Your task to perform on an android device: Open Google Maps and go to "Timeline" Image 0: 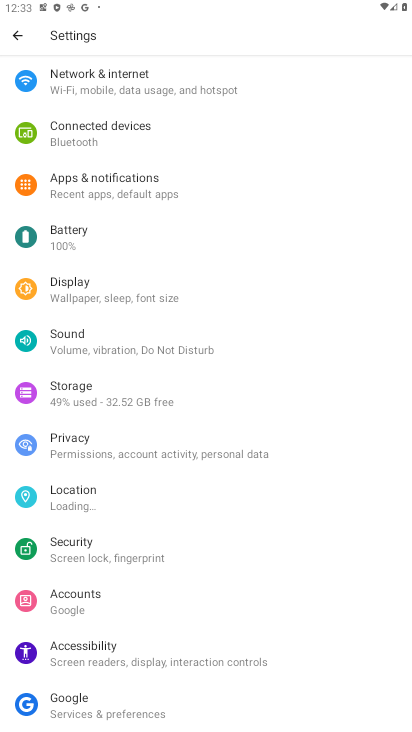
Step 0: press home button
Your task to perform on an android device: Open Google Maps and go to "Timeline" Image 1: 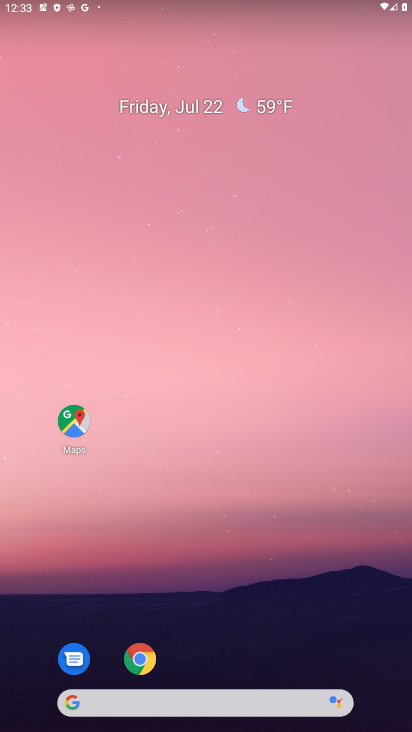
Step 1: drag from (211, 557) to (302, 48)
Your task to perform on an android device: Open Google Maps and go to "Timeline" Image 2: 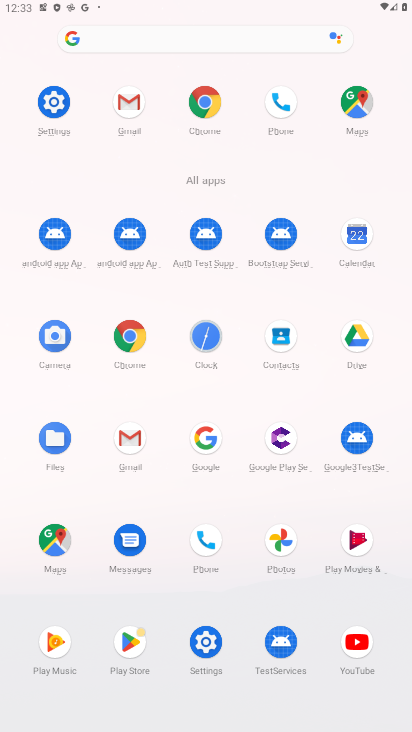
Step 2: click (365, 100)
Your task to perform on an android device: Open Google Maps and go to "Timeline" Image 3: 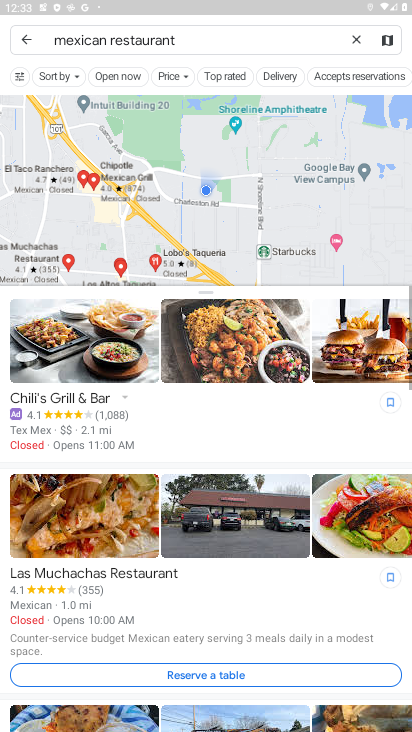
Step 3: click (32, 39)
Your task to perform on an android device: Open Google Maps and go to "Timeline" Image 4: 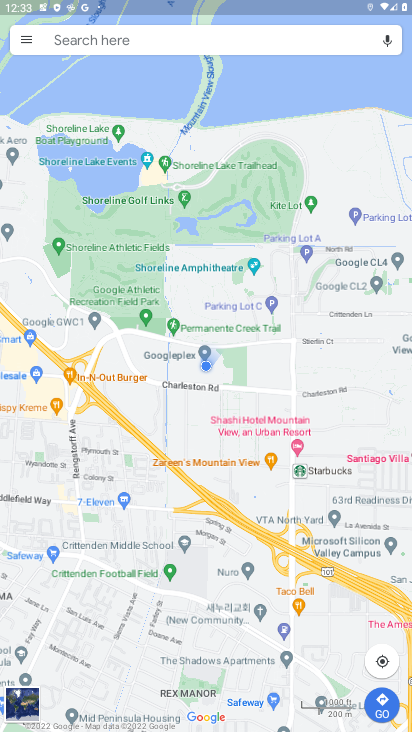
Step 4: click (32, 41)
Your task to perform on an android device: Open Google Maps and go to "Timeline" Image 5: 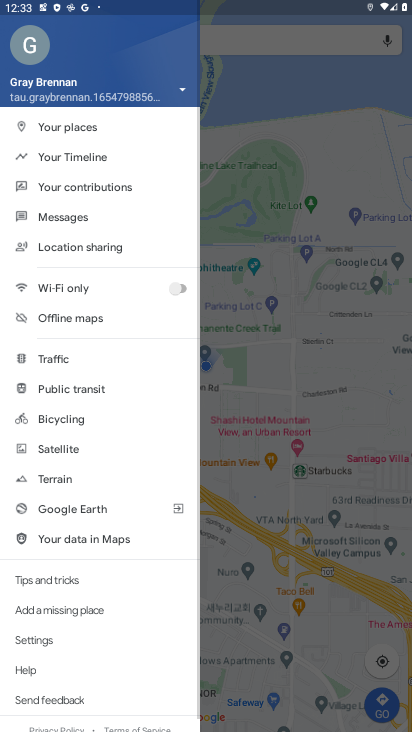
Step 5: click (91, 150)
Your task to perform on an android device: Open Google Maps and go to "Timeline" Image 6: 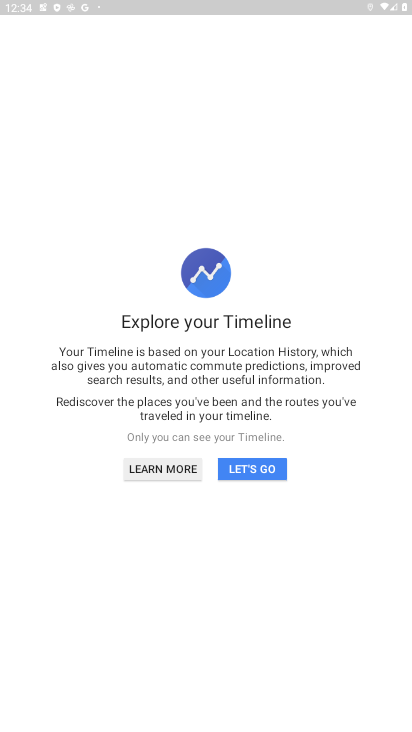
Step 6: click (267, 459)
Your task to perform on an android device: Open Google Maps and go to "Timeline" Image 7: 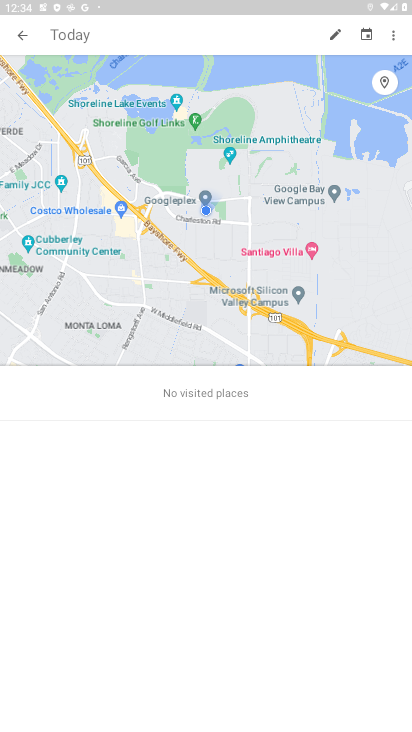
Step 7: task complete